Your task to perform on an android device: open app "Speedtest by Ookla" (install if not already installed) Image 0: 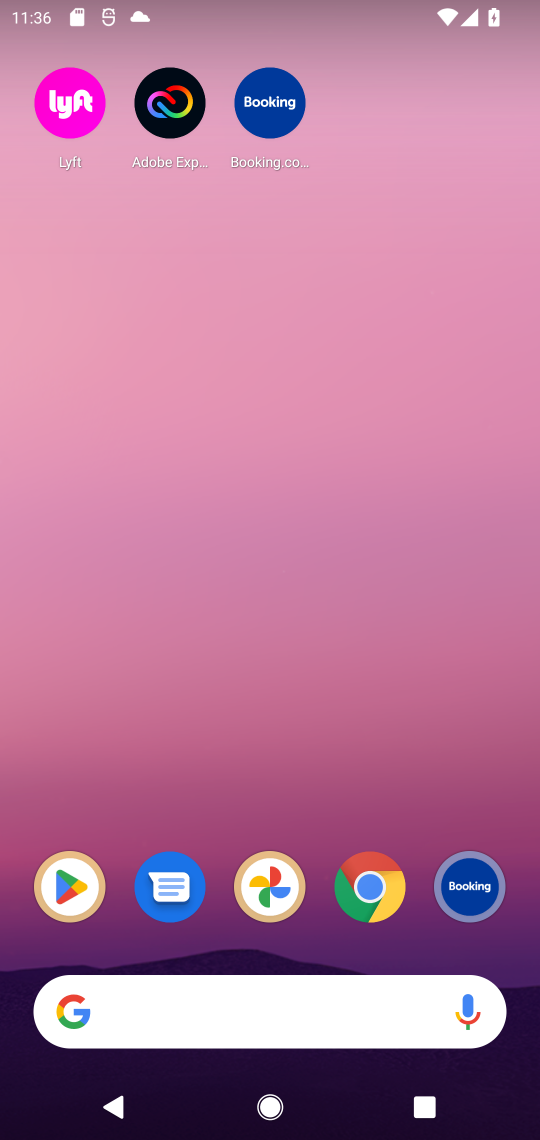
Step 0: drag from (206, 1000) to (270, 332)
Your task to perform on an android device: open app "Speedtest by Ookla" (install if not already installed) Image 1: 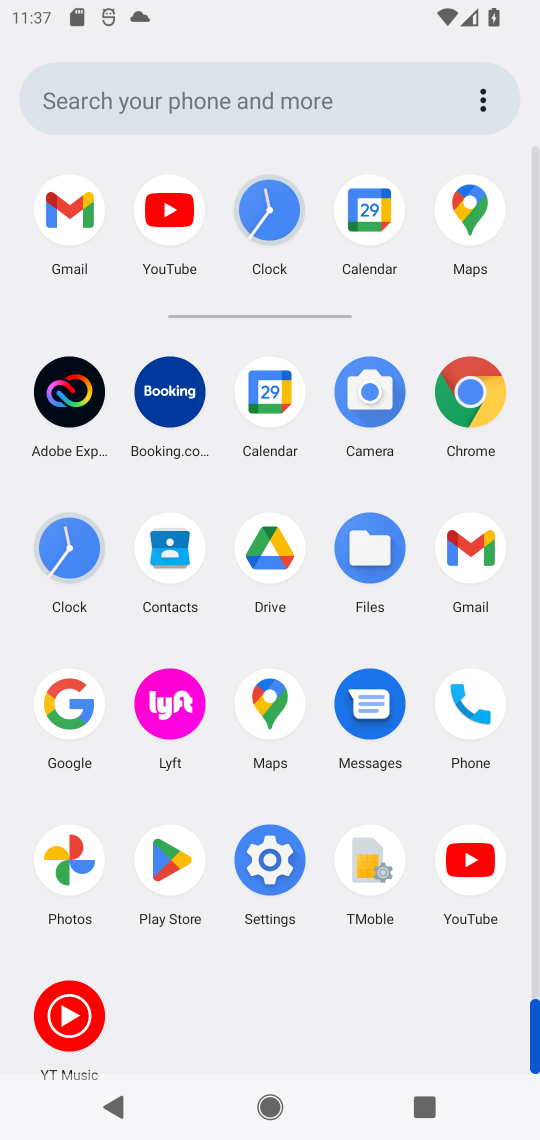
Step 1: click (167, 869)
Your task to perform on an android device: open app "Speedtest by Ookla" (install if not already installed) Image 2: 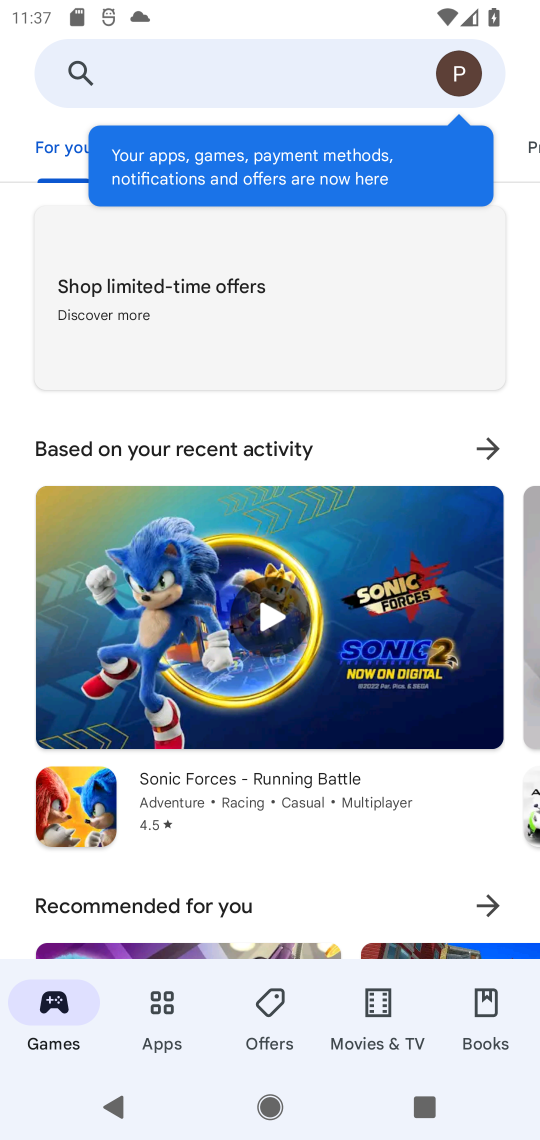
Step 2: click (361, 77)
Your task to perform on an android device: open app "Speedtest by Ookla" (install if not already installed) Image 3: 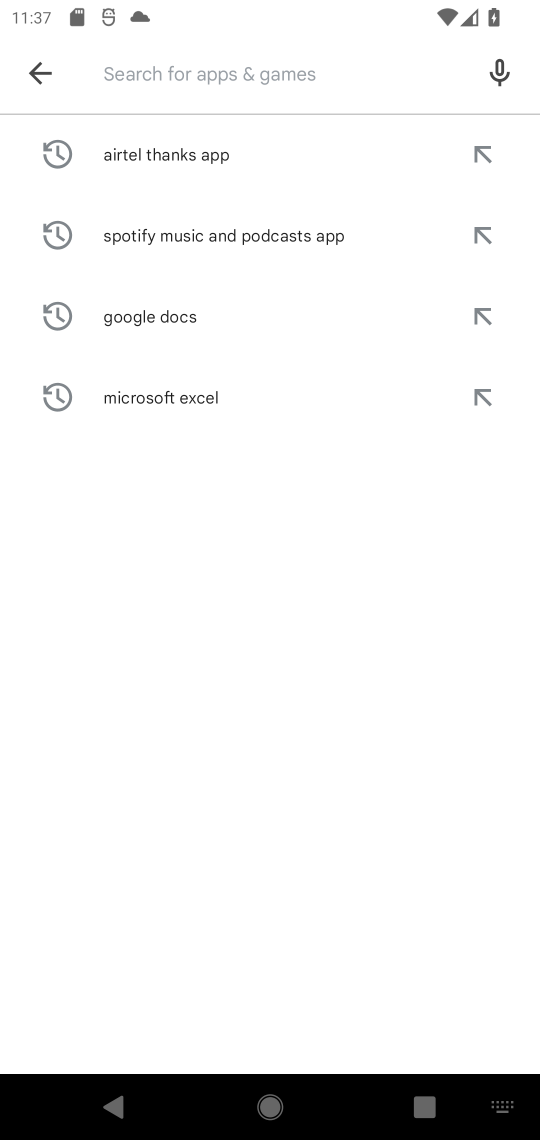
Step 3: click (188, 71)
Your task to perform on an android device: open app "Speedtest by Ookla" (install if not already installed) Image 4: 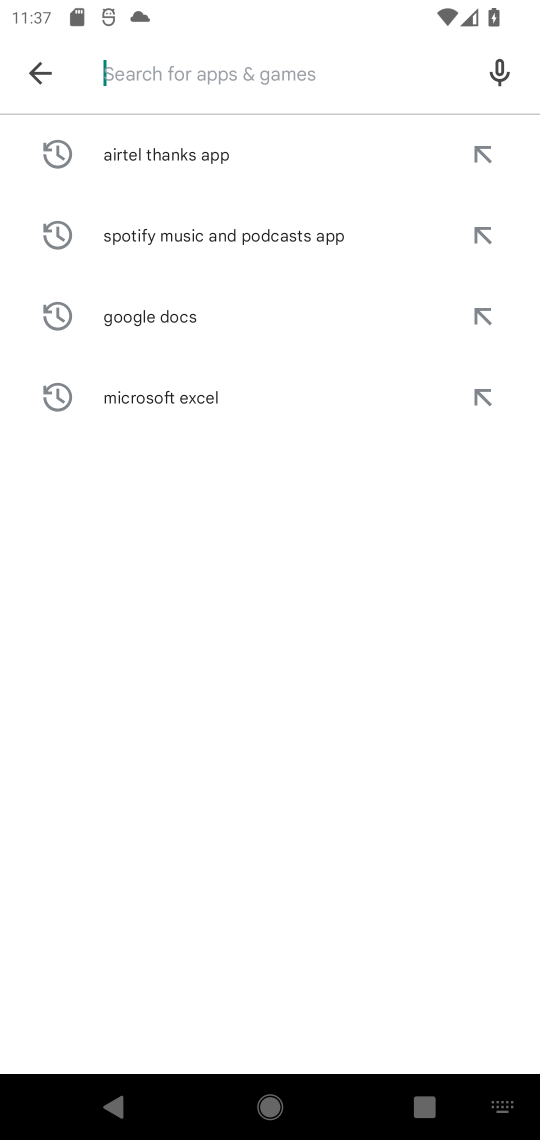
Step 4: type "Speedtest by Ookla"
Your task to perform on an android device: open app "Speedtest by Ookla" (install if not already installed) Image 5: 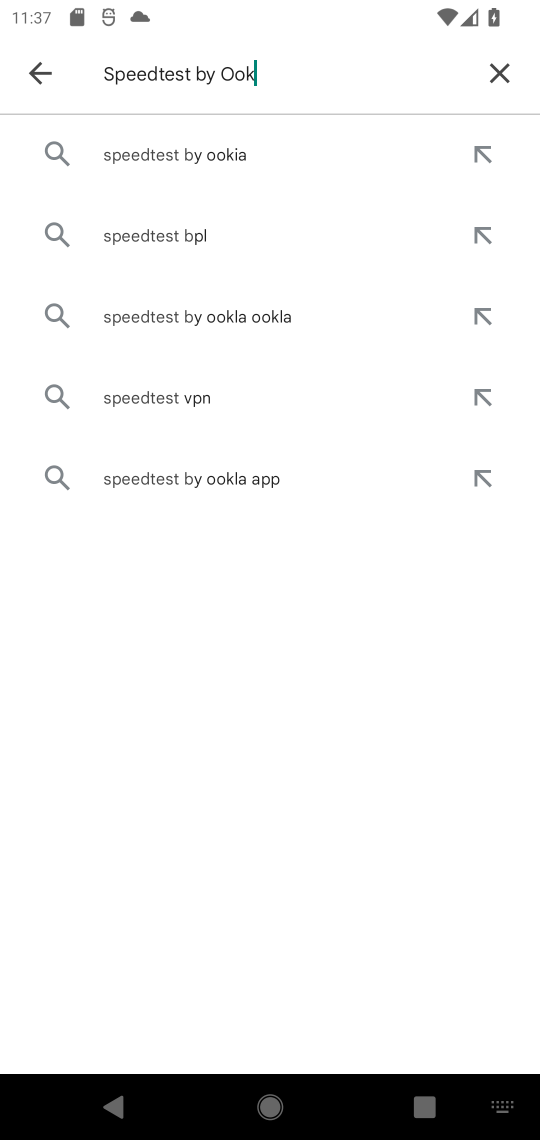
Step 5: type ""
Your task to perform on an android device: open app "Speedtest by Ookla" (install if not already installed) Image 6: 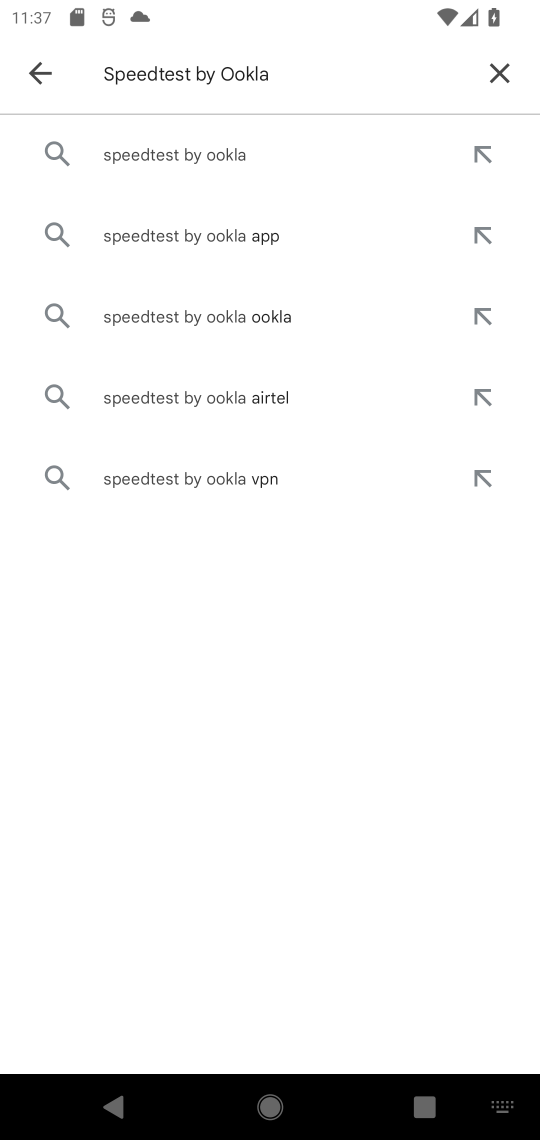
Step 6: click (214, 162)
Your task to perform on an android device: open app "Speedtest by Ookla" (install if not already installed) Image 7: 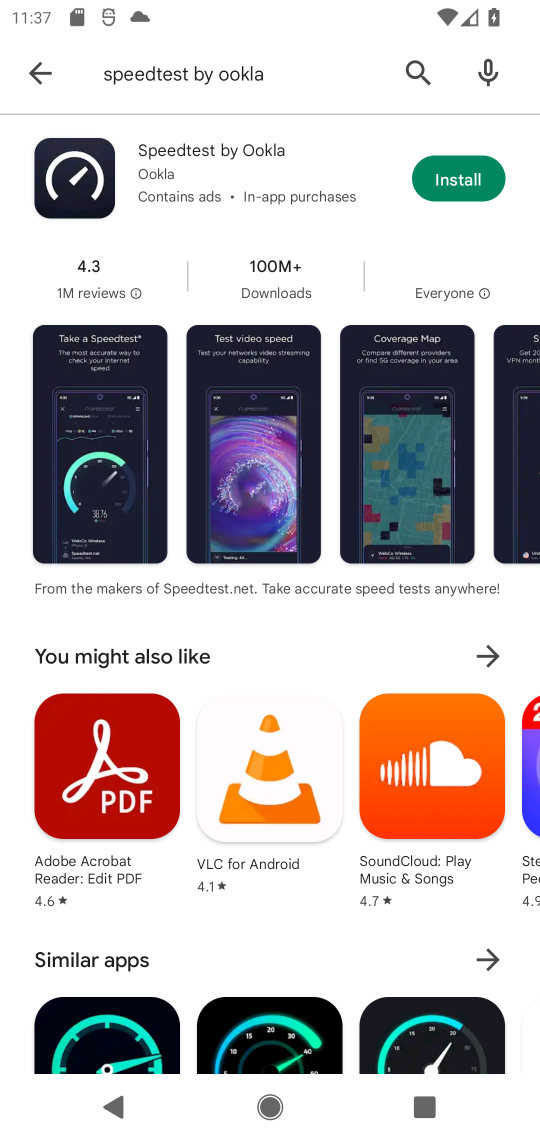
Step 7: click (461, 188)
Your task to perform on an android device: open app "Speedtest by Ookla" (install if not already installed) Image 8: 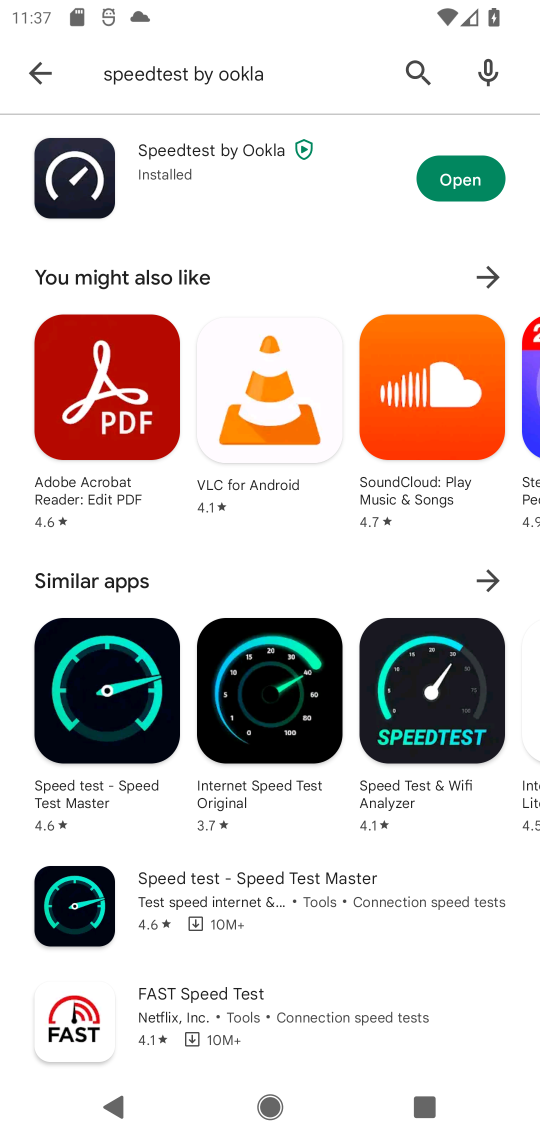
Step 8: click (476, 180)
Your task to perform on an android device: open app "Speedtest by Ookla" (install if not already installed) Image 9: 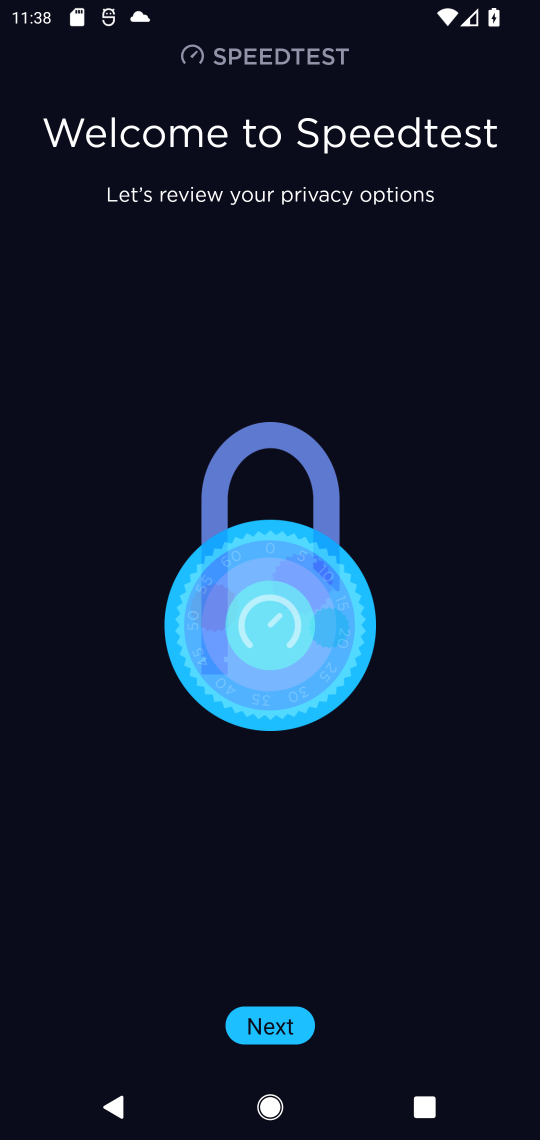
Step 9: task complete